Your task to perform on an android device: turn off notifications settings in the gmail app Image 0: 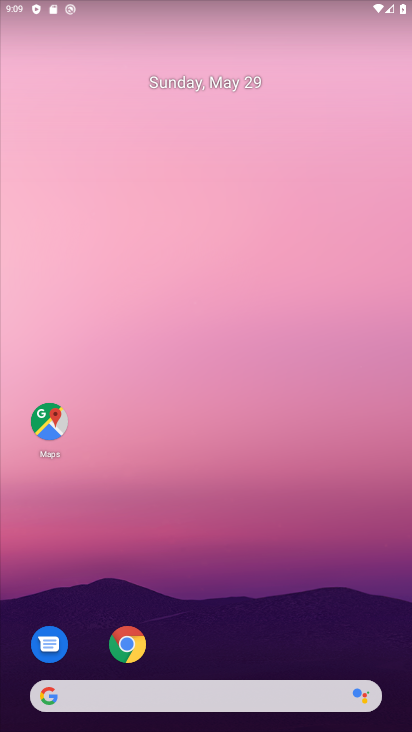
Step 0: drag from (162, 671) to (301, 205)
Your task to perform on an android device: turn off notifications settings in the gmail app Image 1: 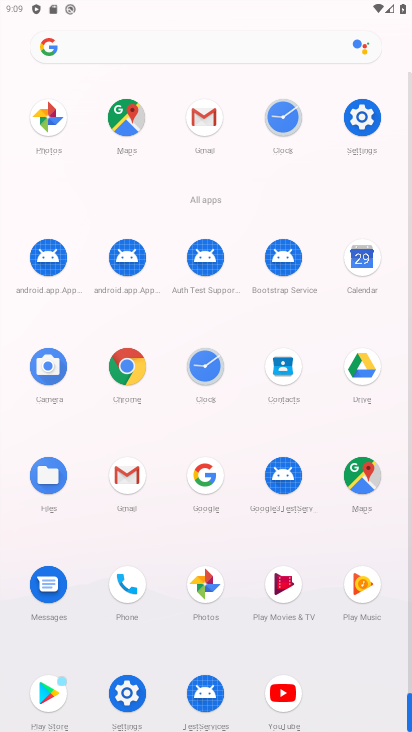
Step 1: click (129, 478)
Your task to perform on an android device: turn off notifications settings in the gmail app Image 2: 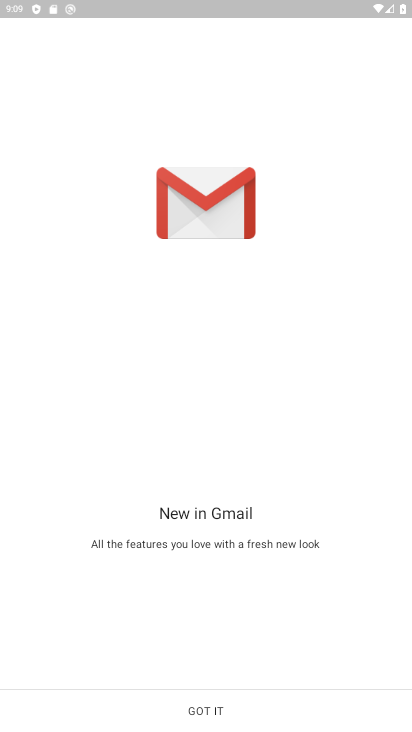
Step 2: click (225, 711)
Your task to perform on an android device: turn off notifications settings in the gmail app Image 3: 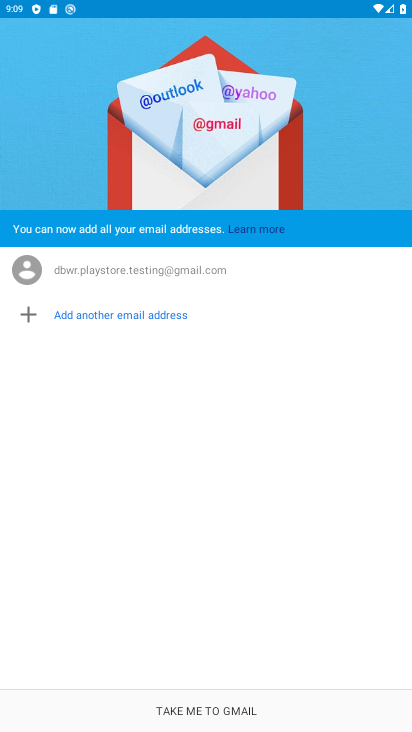
Step 3: click (228, 711)
Your task to perform on an android device: turn off notifications settings in the gmail app Image 4: 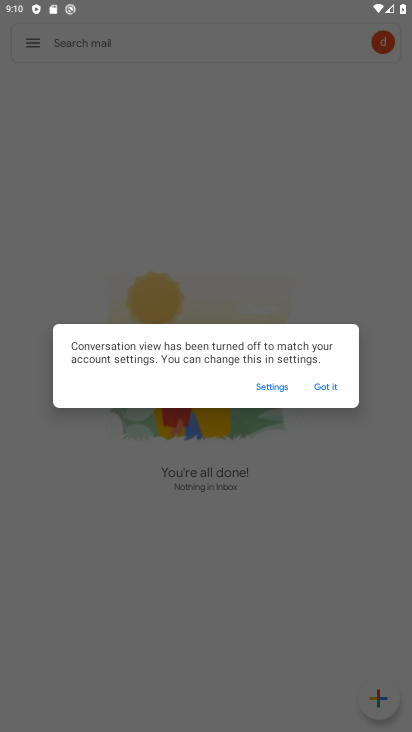
Step 4: click (344, 393)
Your task to perform on an android device: turn off notifications settings in the gmail app Image 5: 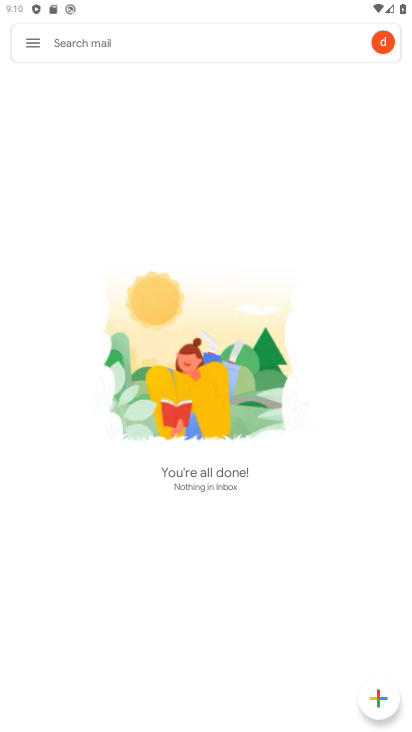
Step 5: click (31, 46)
Your task to perform on an android device: turn off notifications settings in the gmail app Image 6: 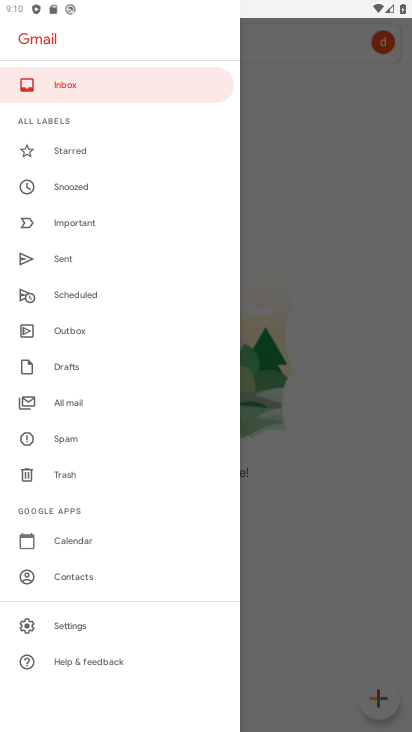
Step 6: drag from (102, 646) to (155, 403)
Your task to perform on an android device: turn off notifications settings in the gmail app Image 7: 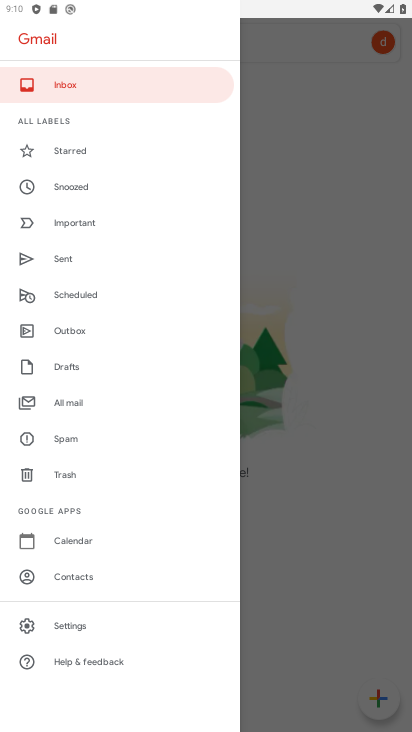
Step 7: click (84, 631)
Your task to perform on an android device: turn off notifications settings in the gmail app Image 8: 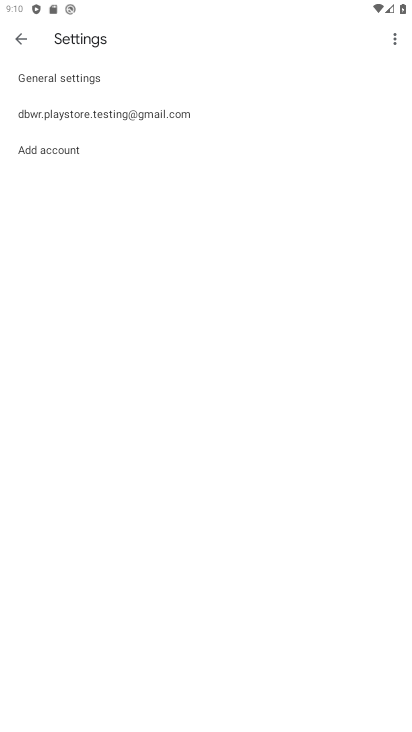
Step 8: click (237, 113)
Your task to perform on an android device: turn off notifications settings in the gmail app Image 9: 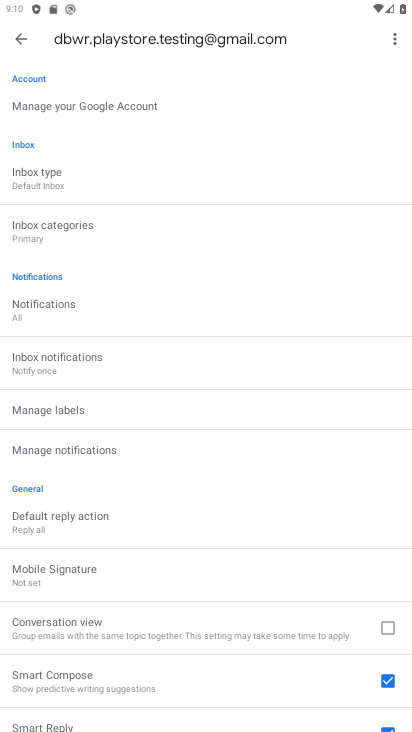
Step 9: click (161, 457)
Your task to perform on an android device: turn off notifications settings in the gmail app Image 10: 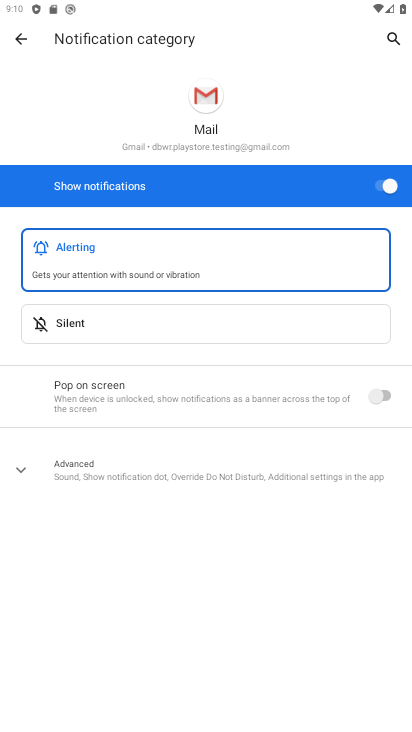
Step 10: click (377, 173)
Your task to perform on an android device: turn off notifications settings in the gmail app Image 11: 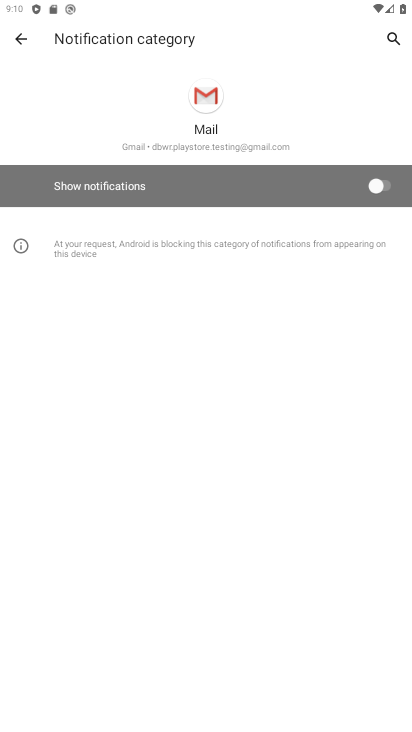
Step 11: task complete